Your task to perform on an android device: Open Youtube and go to the subscriptions tab Image 0: 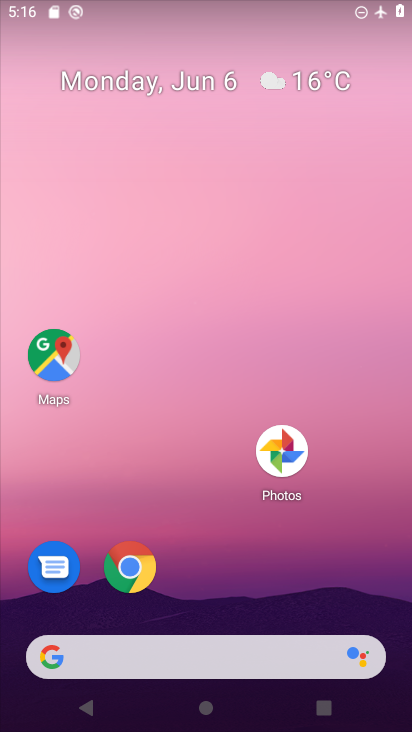
Step 0: drag from (274, 676) to (273, 171)
Your task to perform on an android device: Open Youtube and go to the subscriptions tab Image 1: 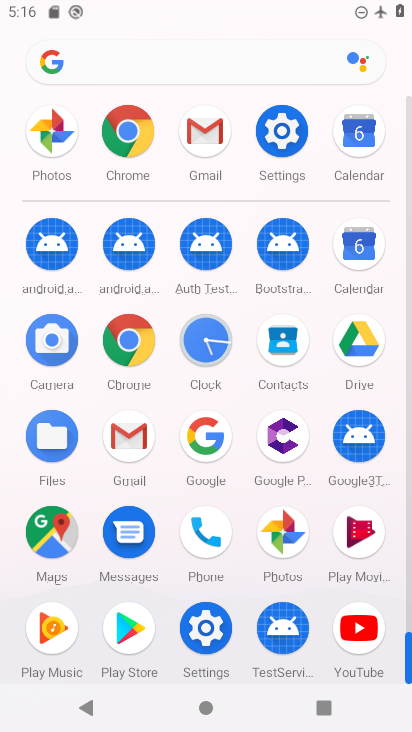
Step 1: click (368, 627)
Your task to perform on an android device: Open Youtube and go to the subscriptions tab Image 2: 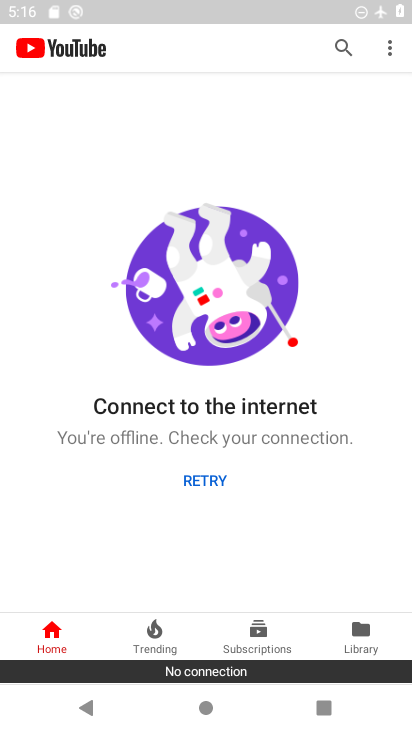
Step 2: click (261, 634)
Your task to perform on an android device: Open Youtube and go to the subscriptions tab Image 3: 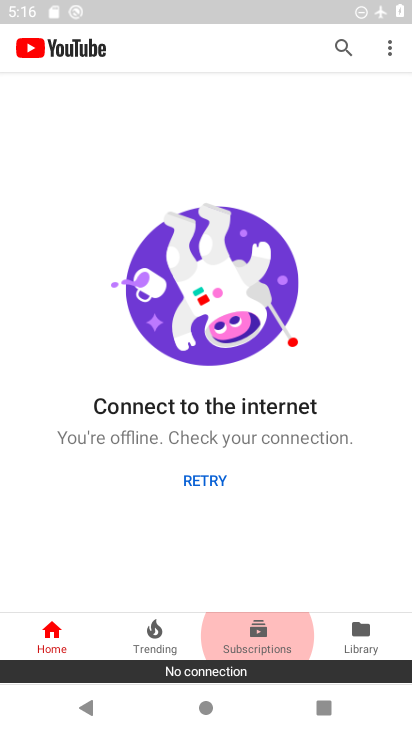
Step 3: click (257, 621)
Your task to perform on an android device: Open Youtube and go to the subscriptions tab Image 4: 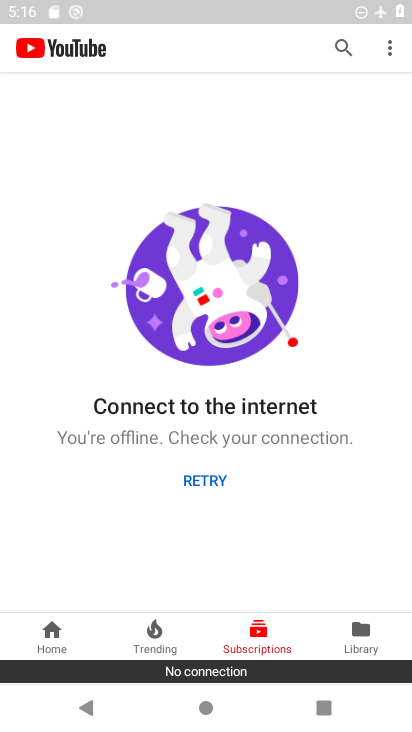
Step 4: task complete